Your task to perform on an android device: What's the weather today? Image 0: 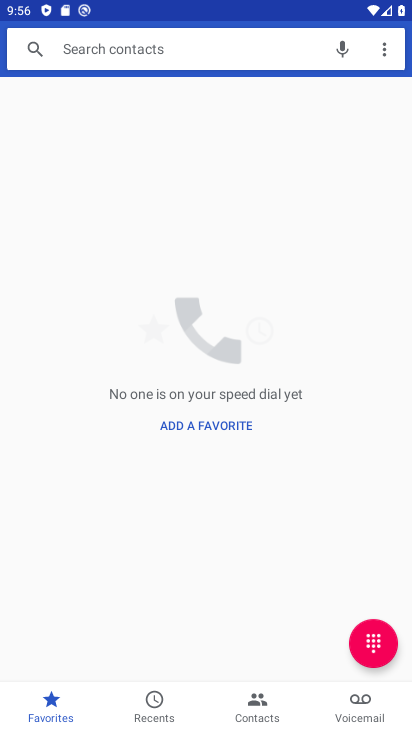
Step 0: press home button
Your task to perform on an android device: What's the weather today? Image 1: 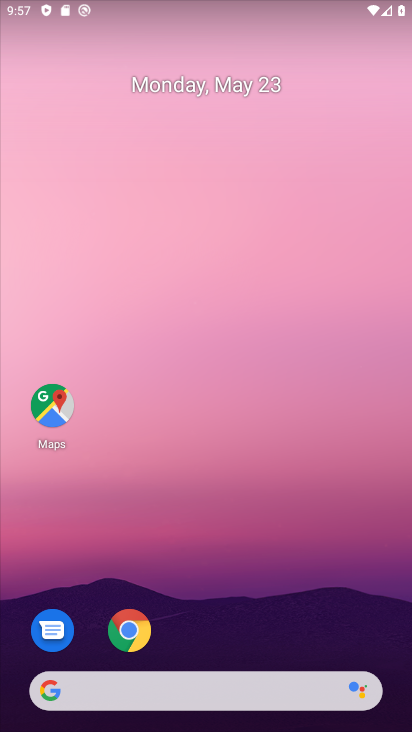
Step 1: click (123, 695)
Your task to perform on an android device: What's the weather today? Image 2: 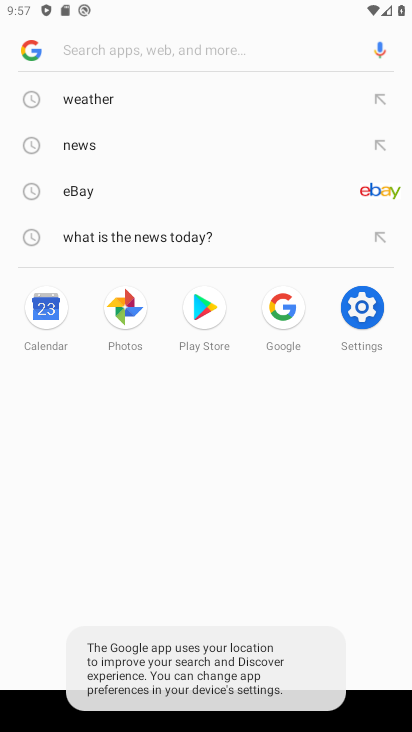
Step 2: click (75, 98)
Your task to perform on an android device: What's the weather today? Image 3: 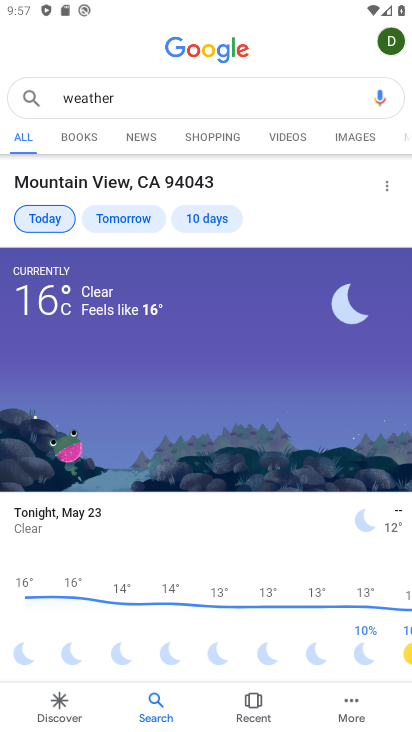
Step 3: task complete